Your task to perform on an android device: Go to calendar. Show me events next week Image 0: 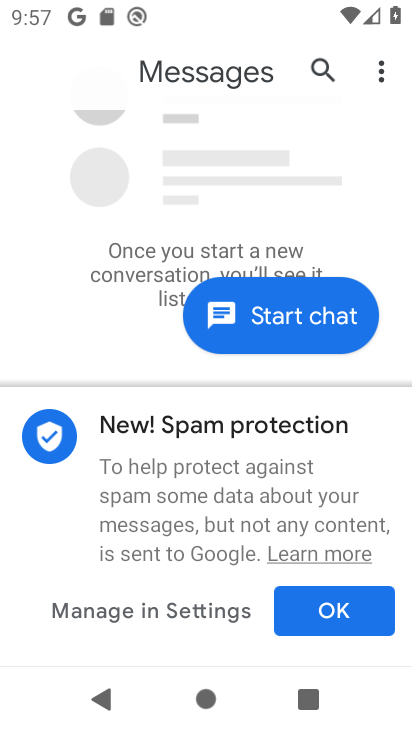
Step 0: press home button
Your task to perform on an android device: Go to calendar. Show me events next week Image 1: 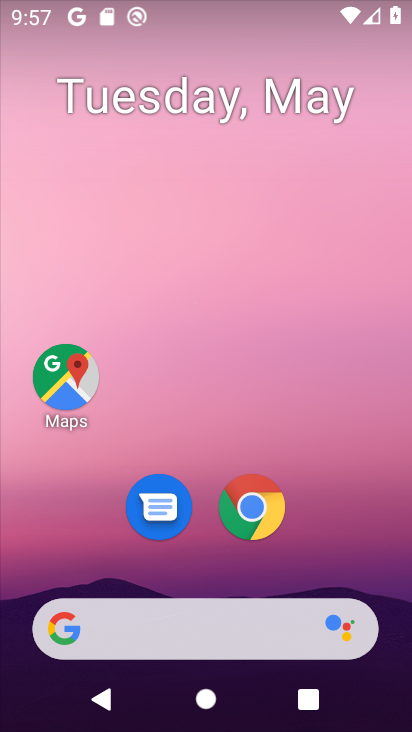
Step 1: drag from (341, 566) to (161, 0)
Your task to perform on an android device: Go to calendar. Show me events next week Image 2: 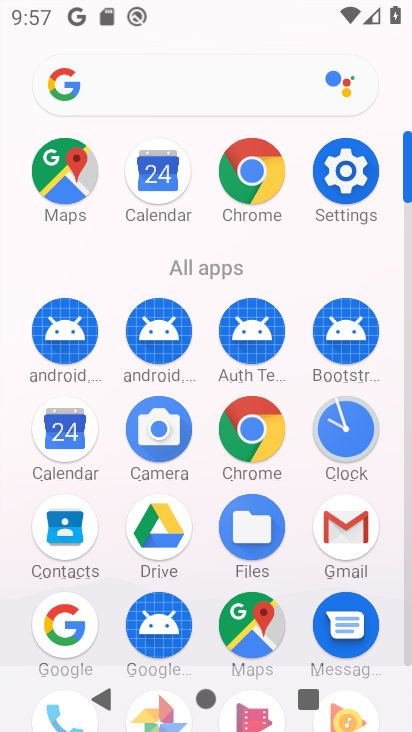
Step 2: click (67, 434)
Your task to perform on an android device: Go to calendar. Show me events next week Image 3: 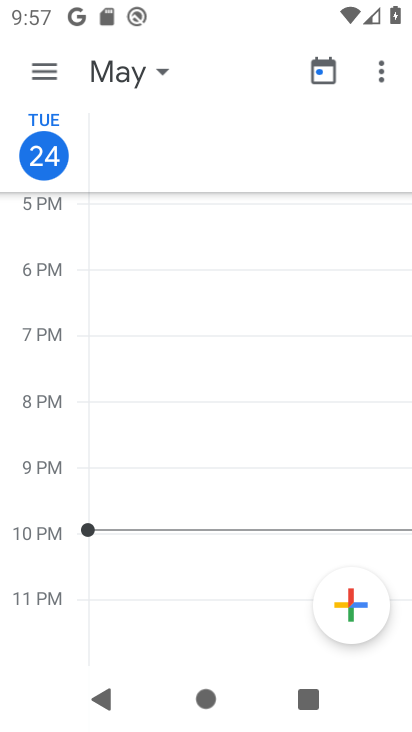
Step 3: click (57, 65)
Your task to perform on an android device: Go to calendar. Show me events next week Image 4: 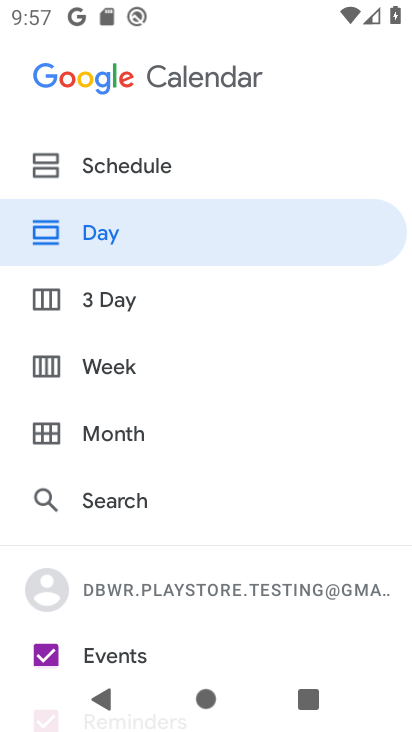
Step 4: click (57, 65)
Your task to perform on an android device: Go to calendar. Show me events next week Image 5: 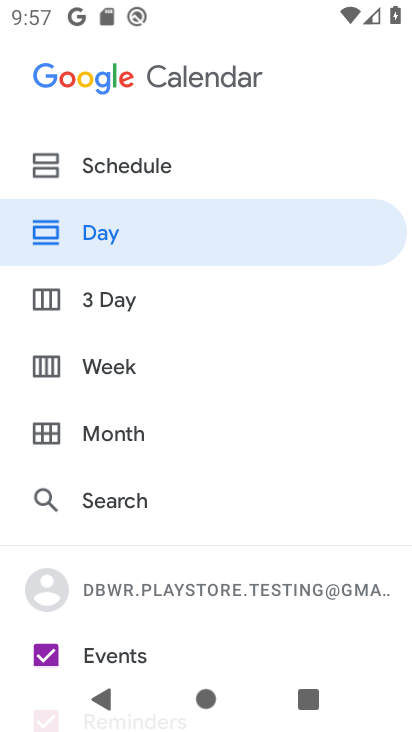
Step 5: click (107, 373)
Your task to perform on an android device: Go to calendar. Show me events next week Image 6: 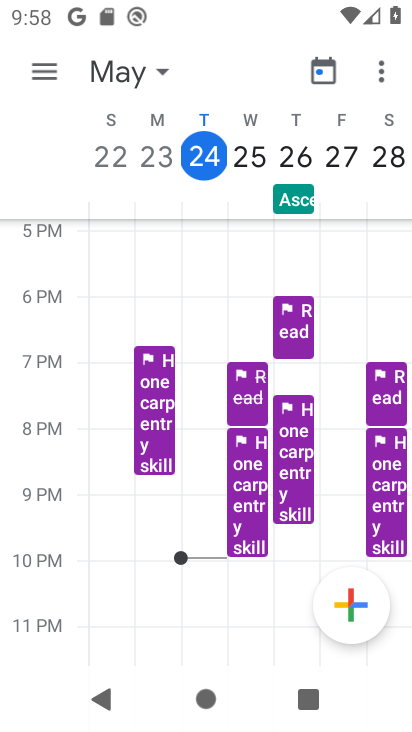
Step 6: task complete